Your task to perform on an android device: turn off sleep mode Image 0: 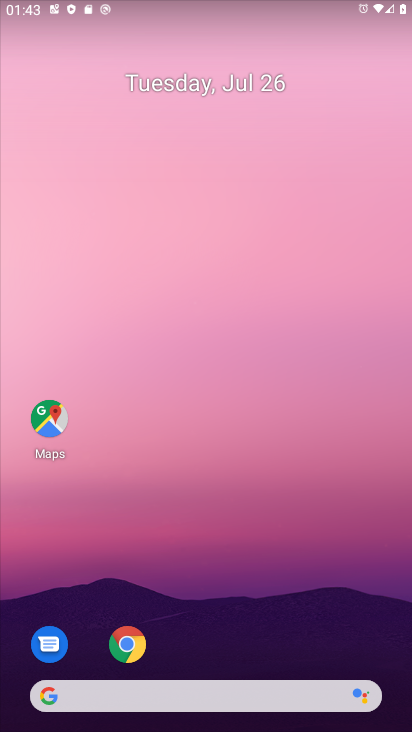
Step 0: drag from (270, 663) to (264, 155)
Your task to perform on an android device: turn off sleep mode Image 1: 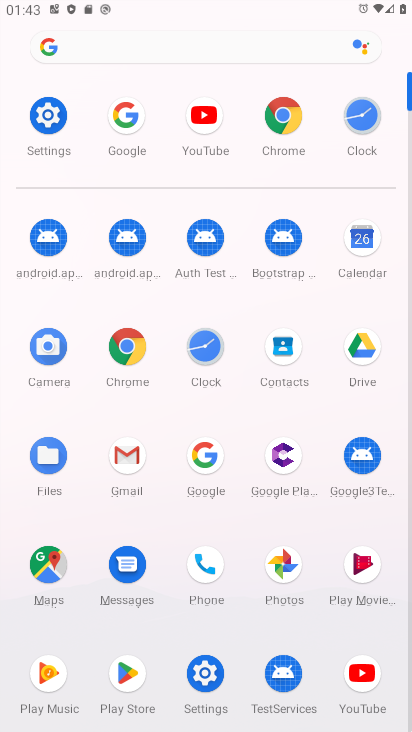
Step 1: click (48, 107)
Your task to perform on an android device: turn off sleep mode Image 2: 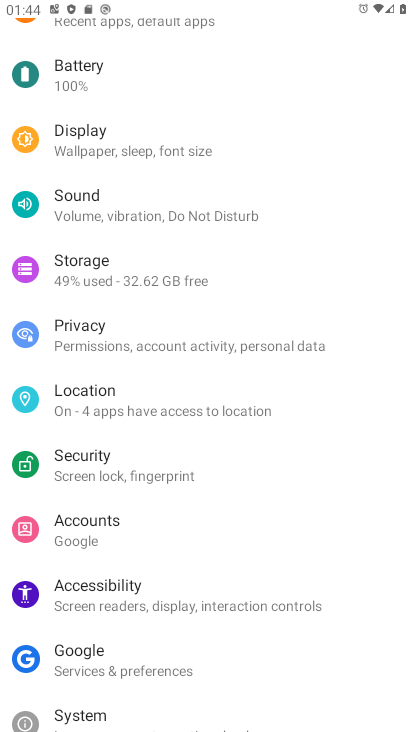
Step 2: task complete